Your task to perform on an android device: Do I have any events tomorrow? Image 0: 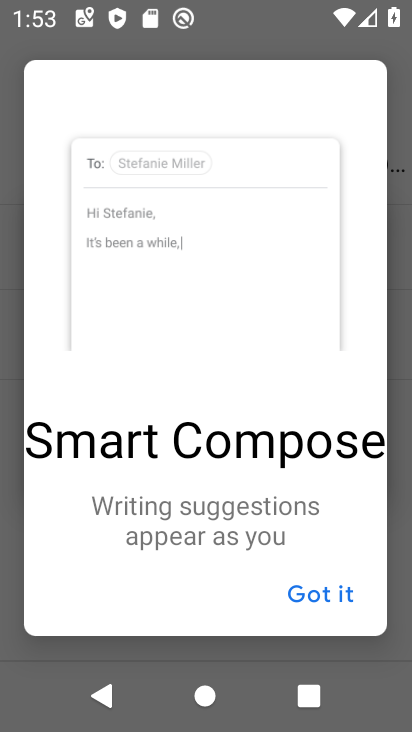
Step 0: press home button
Your task to perform on an android device: Do I have any events tomorrow? Image 1: 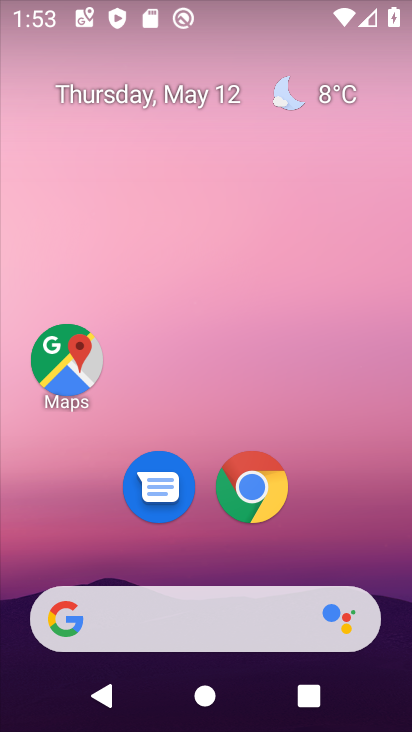
Step 1: drag from (259, 541) to (231, 46)
Your task to perform on an android device: Do I have any events tomorrow? Image 2: 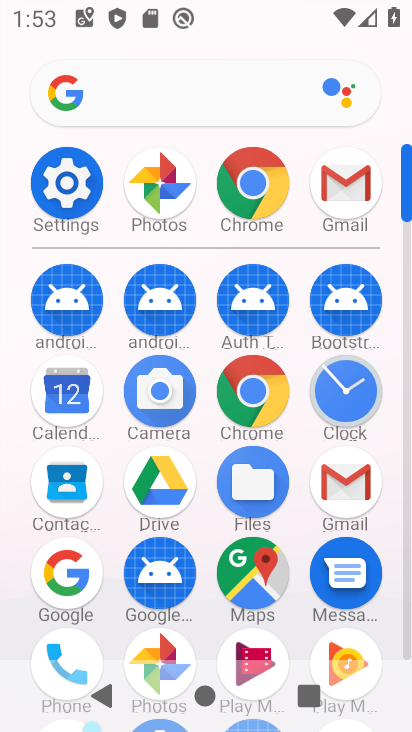
Step 2: click (70, 401)
Your task to perform on an android device: Do I have any events tomorrow? Image 3: 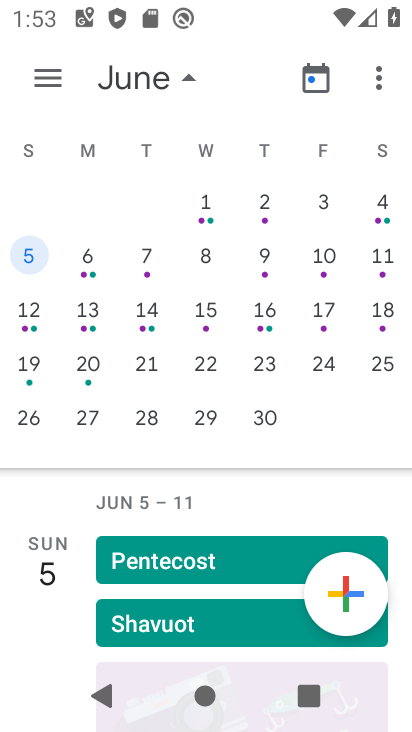
Step 3: click (18, 324)
Your task to perform on an android device: Do I have any events tomorrow? Image 4: 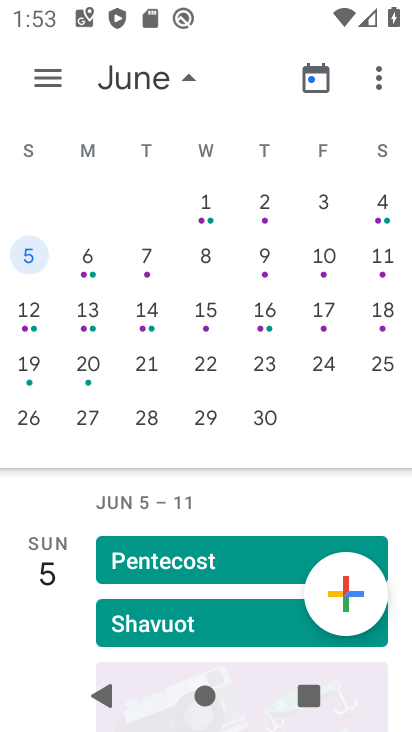
Step 4: drag from (135, 257) to (390, 230)
Your task to perform on an android device: Do I have any events tomorrow? Image 5: 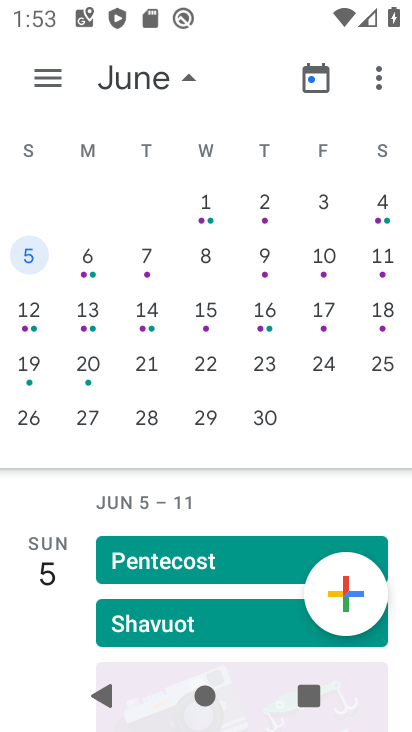
Step 5: drag from (83, 262) to (379, 262)
Your task to perform on an android device: Do I have any events tomorrow? Image 6: 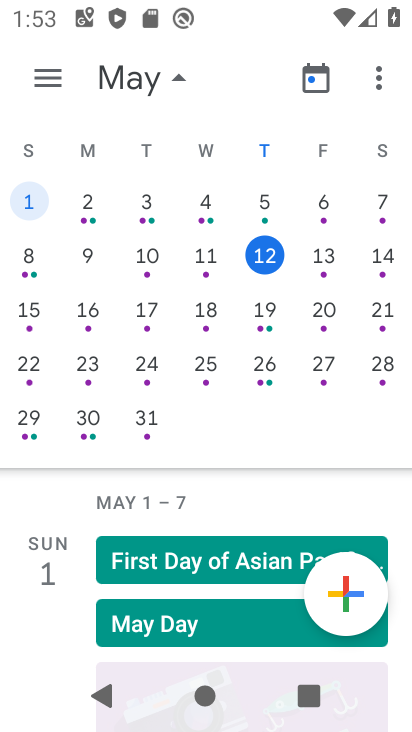
Step 6: click (313, 255)
Your task to perform on an android device: Do I have any events tomorrow? Image 7: 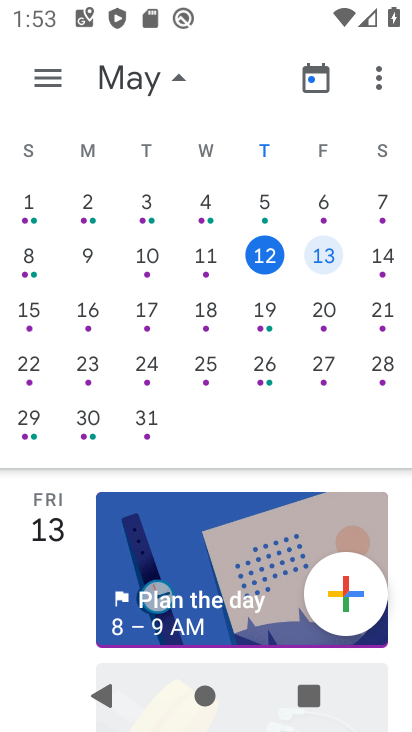
Step 7: task complete